Your task to perform on an android device: Go to Reddit.com Image 0: 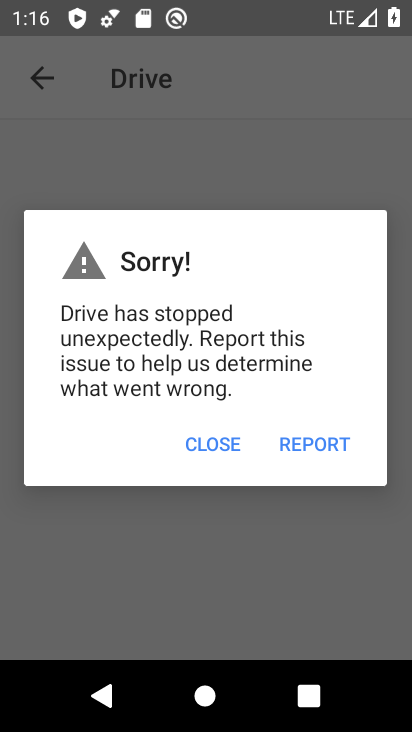
Step 0: press home button
Your task to perform on an android device: Go to Reddit.com Image 1: 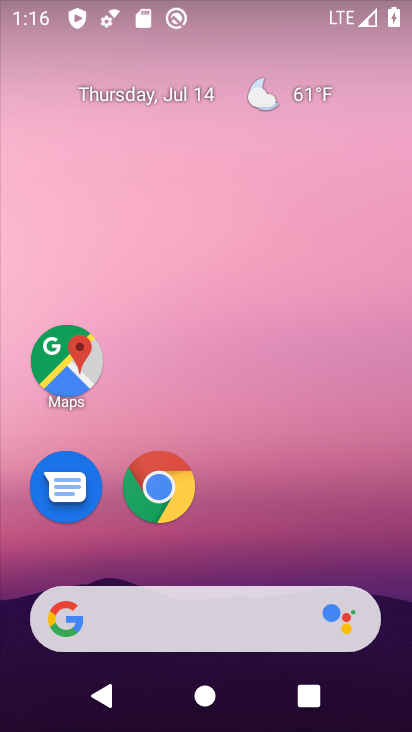
Step 1: drag from (368, 525) to (368, 67)
Your task to perform on an android device: Go to Reddit.com Image 2: 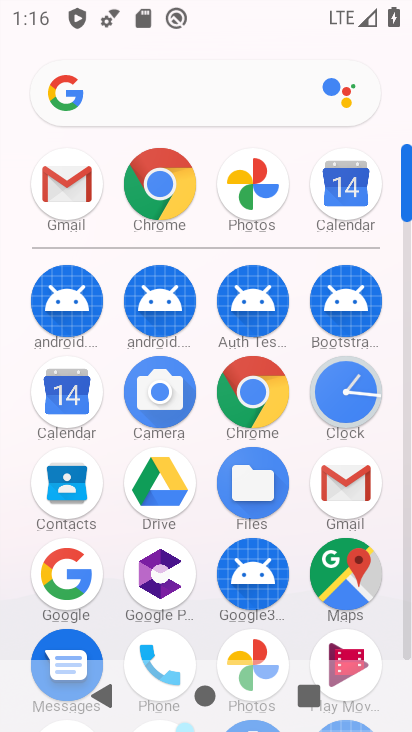
Step 2: click (255, 392)
Your task to perform on an android device: Go to Reddit.com Image 3: 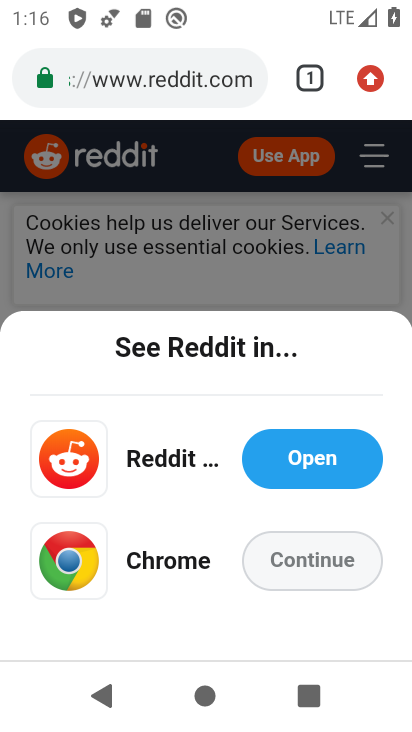
Step 3: task complete